Your task to perform on an android device: Open calendar and show me the second week of next month Image 0: 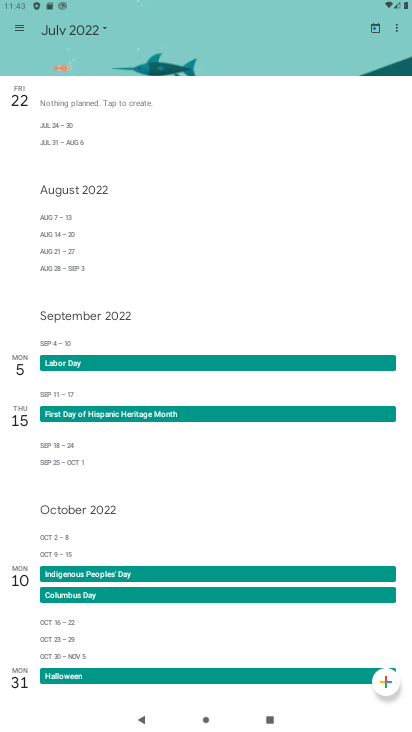
Step 0: press home button
Your task to perform on an android device: Open calendar and show me the second week of next month Image 1: 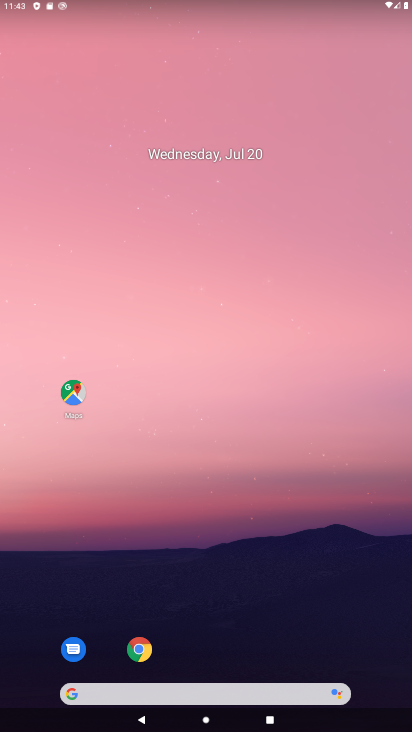
Step 1: drag from (274, 642) to (235, 102)
Your task to perform on an android device: Open calendar and show me the second week of next month Image 2: 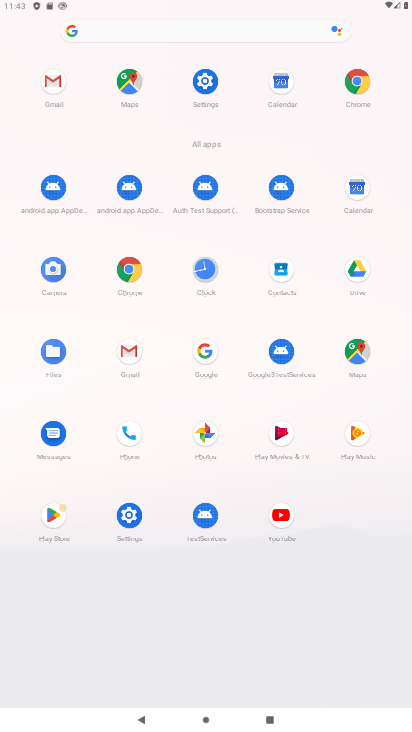
Step 2: click (350, 194)
Your task to perform on an android device: Open calendar and show me the second week of next month Image 3: 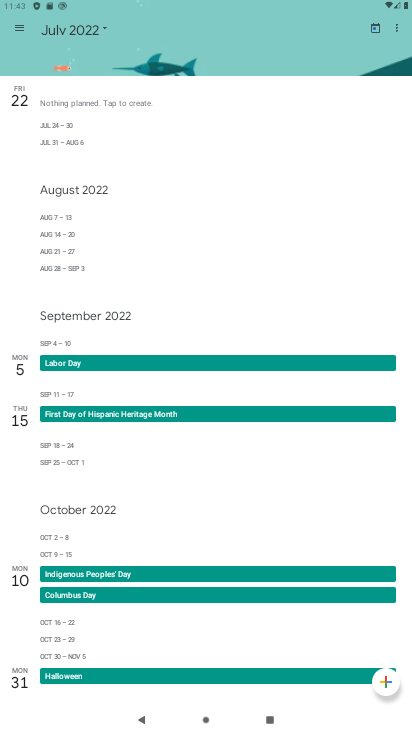
Step 3: click (83, 17)
Your task to perform on an android device: Open calendar and show me the second week of next month Image 4: 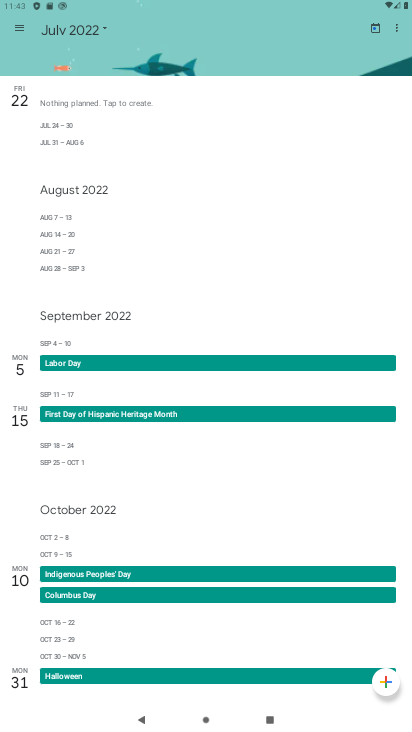
Step 4: click (100, 34)
Your task to perform on an android device: Open calendar and show me the second week of next month Image 5: 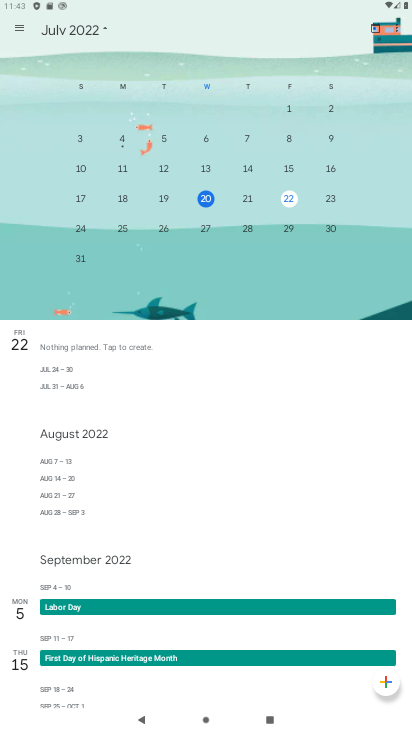
Step 5: drag from (333, 202) to (2, 259)
Your task to perform on an android device: Open calendar and show me the second week of next month Image 6: 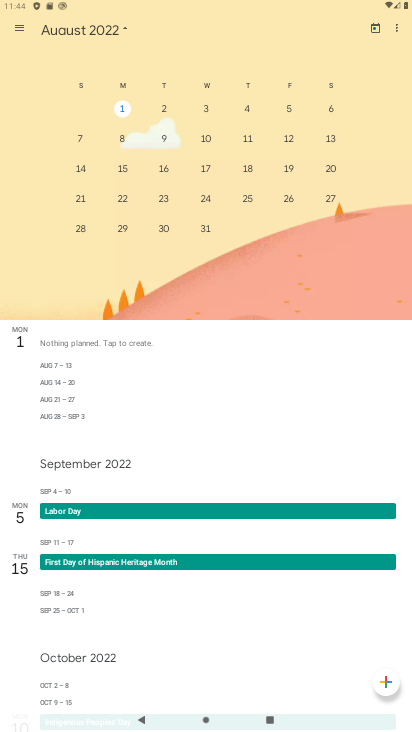
Step 6: click (124, 131)
Your task to perform on an android device: Open calendar and show me the second week of next month Image 7: 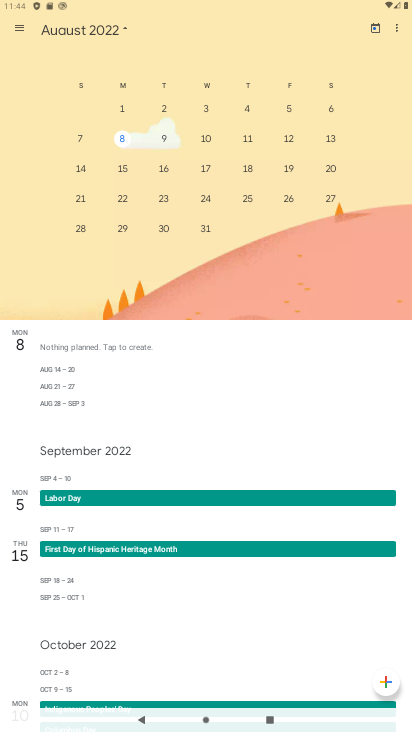
Step 7: task complete